Your task to perform on an android device: What's the price of the LG TV? Image 0: 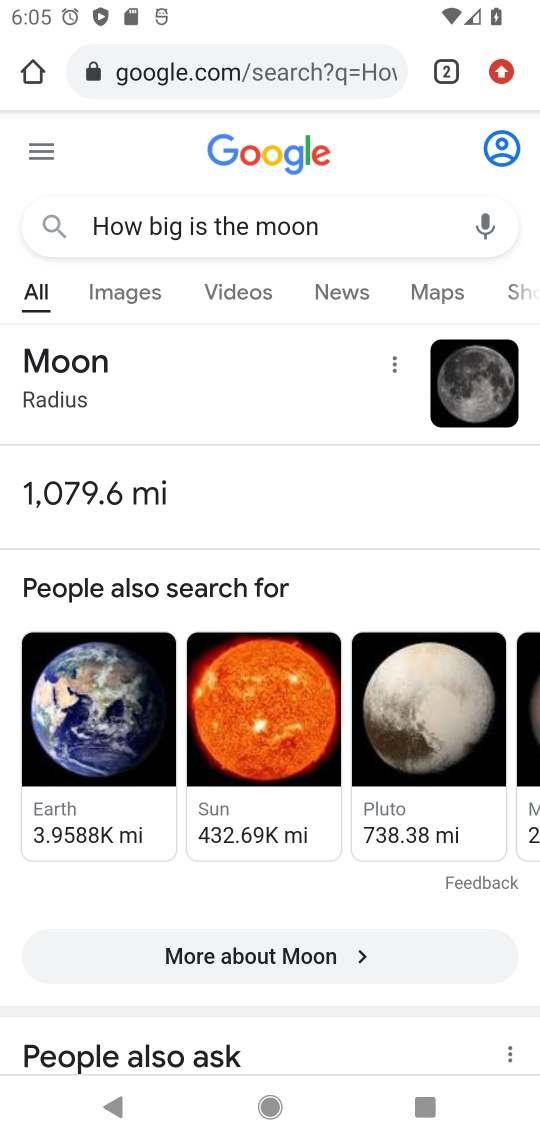
Step 0: click (317, 76)
Your task to perform on an android device: What's the price of the LG TV? Image 1: 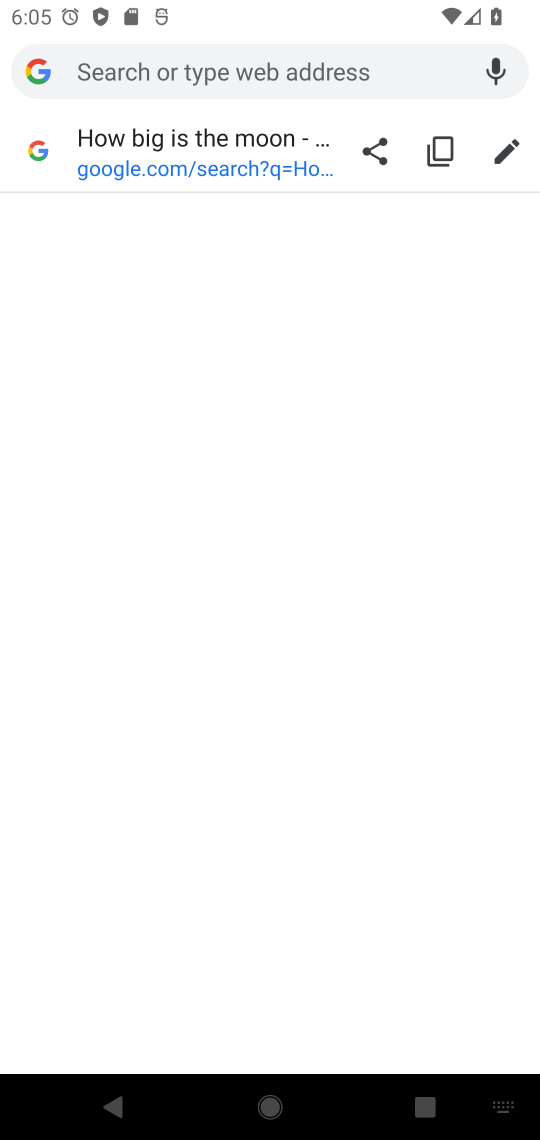
Step 1: type "price of the LG TV"
Your task to perform on an android device: What's the price of the LG TV? Image 2: 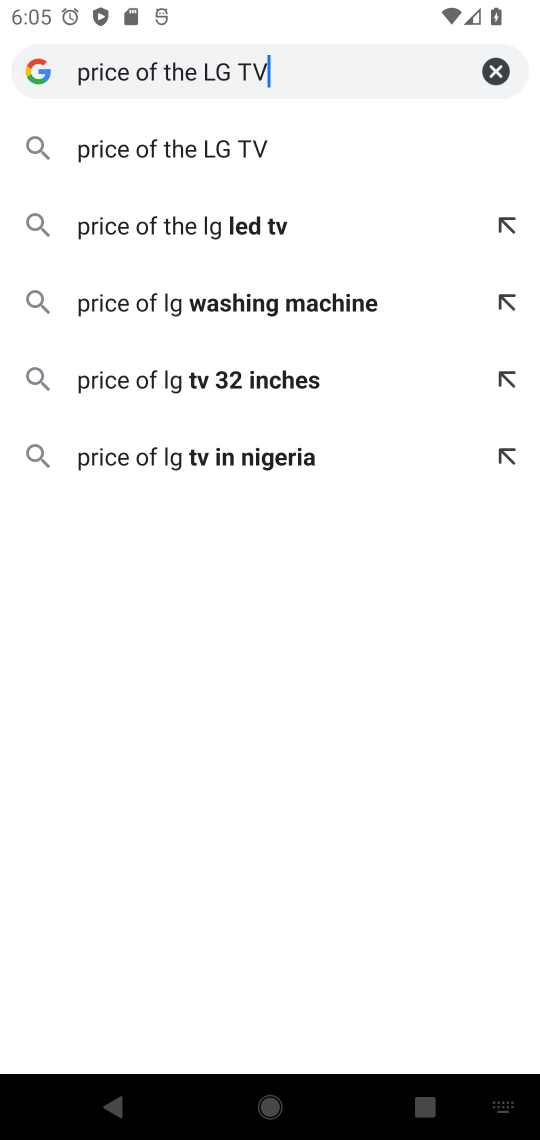
Step 2: type ""
Your task to perform on an android device: What's the price of the LG TV? Image 3: 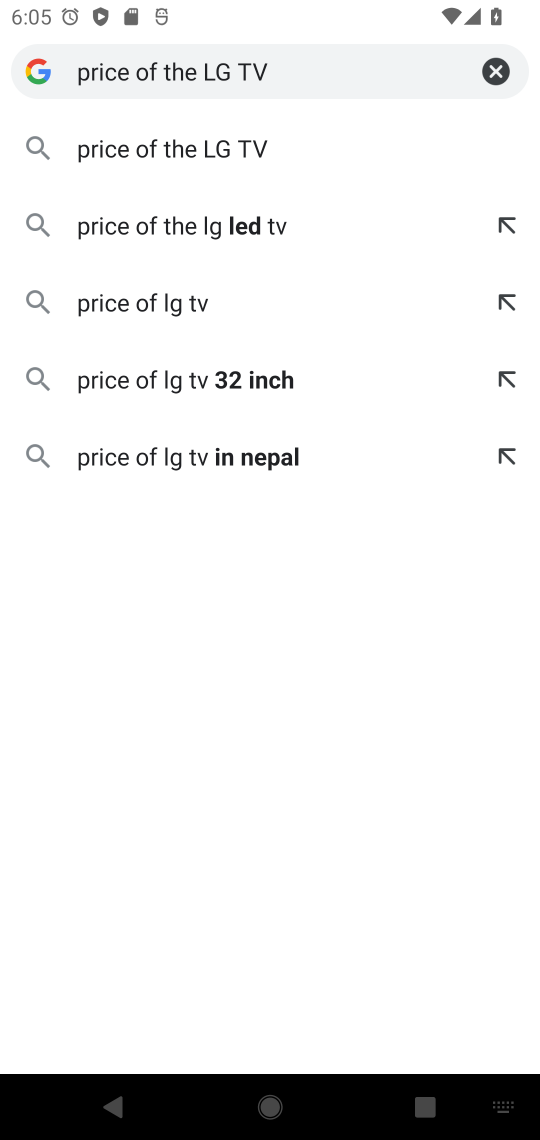
Step 3: click (199, 150)
Your task to perform on an android device: What's the price of the LG TV? Image 4: 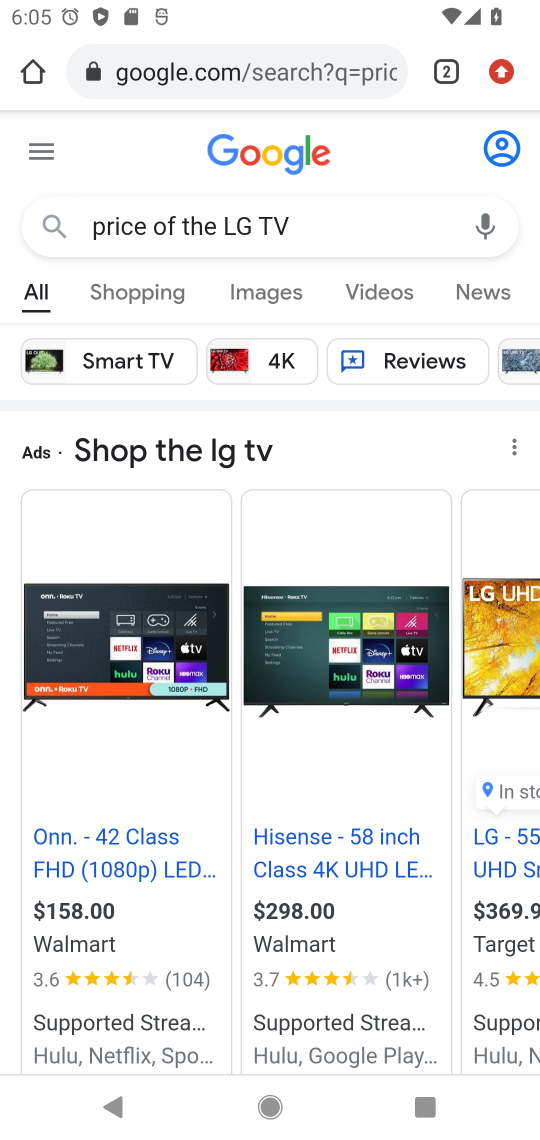
Step 4: drag from (176, 836) to (216, 463)
Your task to perform on an android device: What's the price of the LG TV? Image 5: 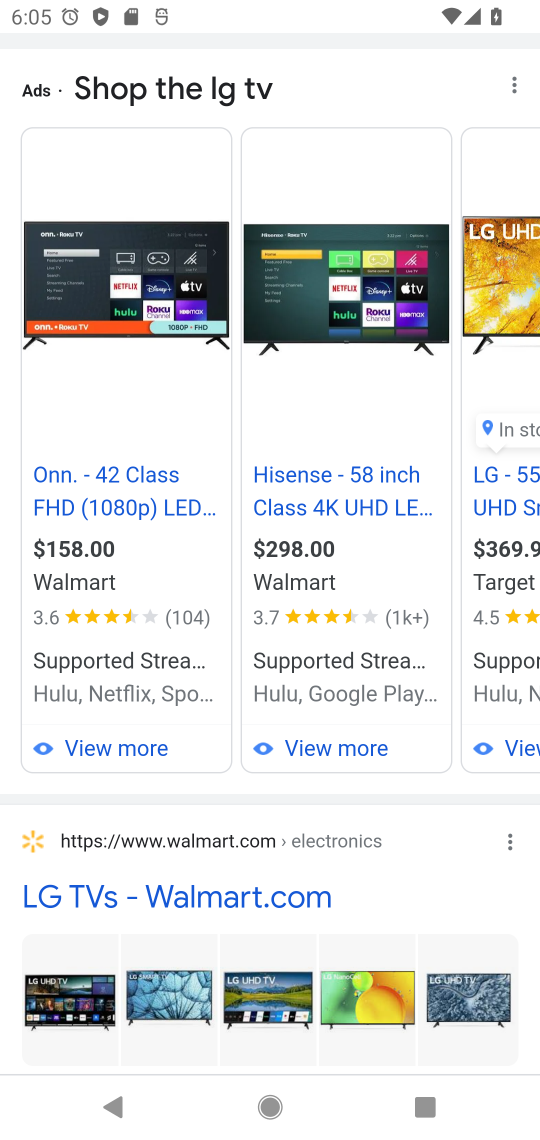
Step 5: click (222, 894)
Your task to perform on an android device: What's the price of the LG TV? Image 6: 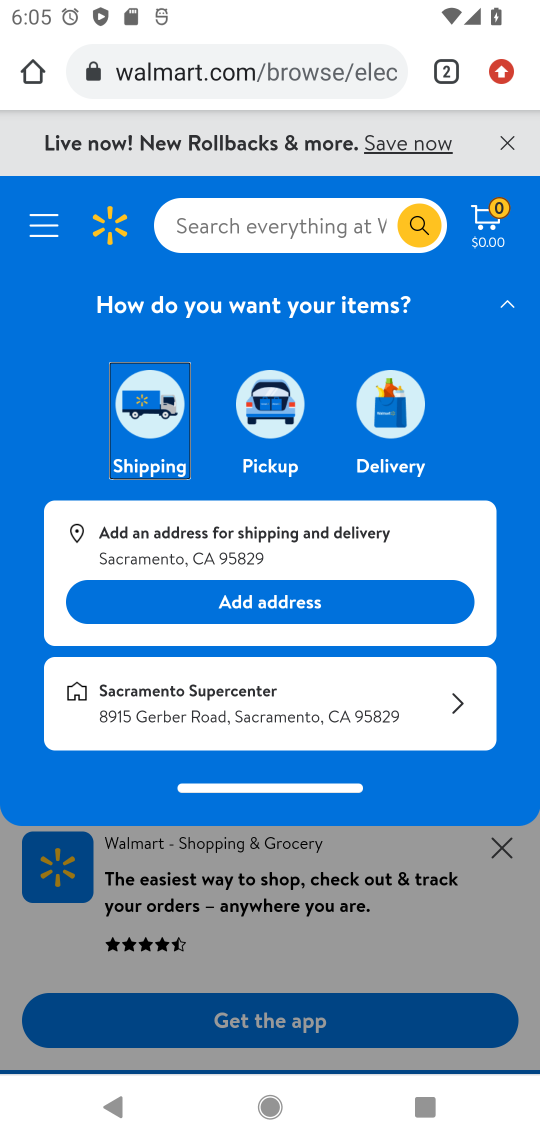
Step 6: click (512, 303)
Your task to perform on an android device: What's the price of the LG TV? Image 7: 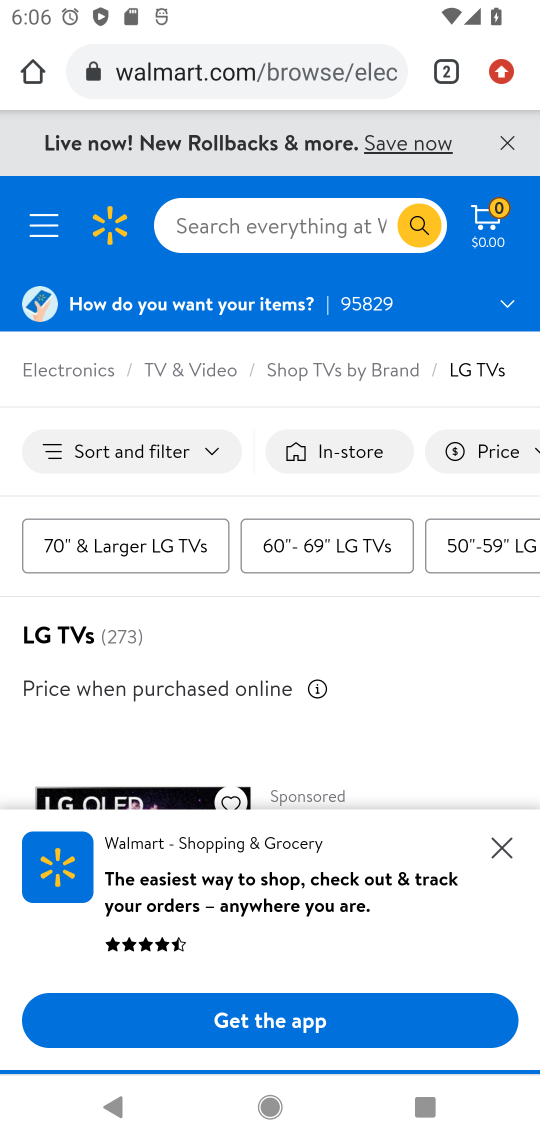
Step 7: drag from (447, 749) to (368, 448)
Your task to perform on an android device: What's the price of the LG TV? Image 8: 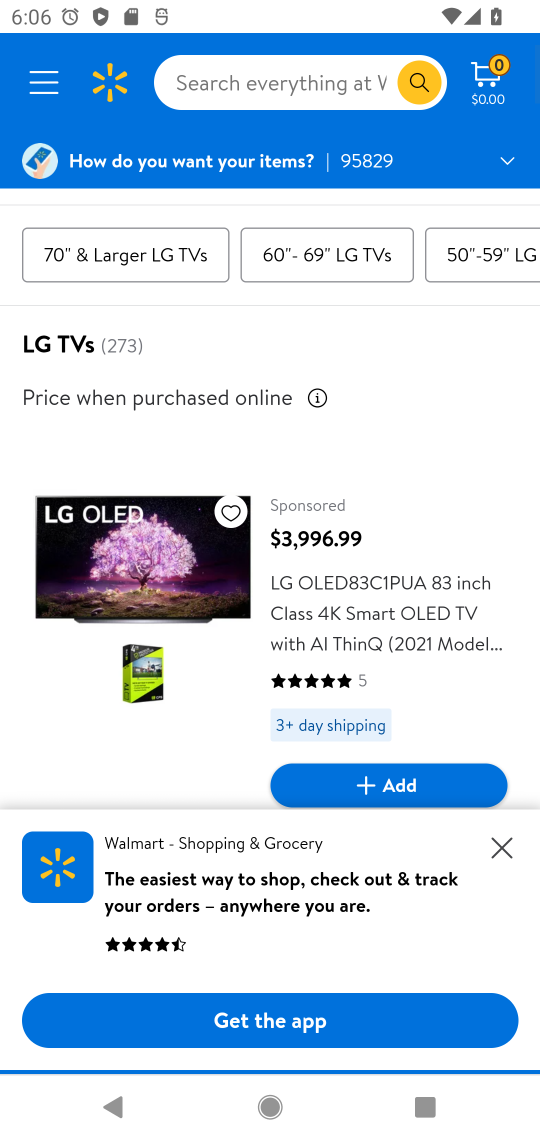
Step 8: click (507, 850)
Your task to perform on an android device: What's the price of the LG TV? Image 9: 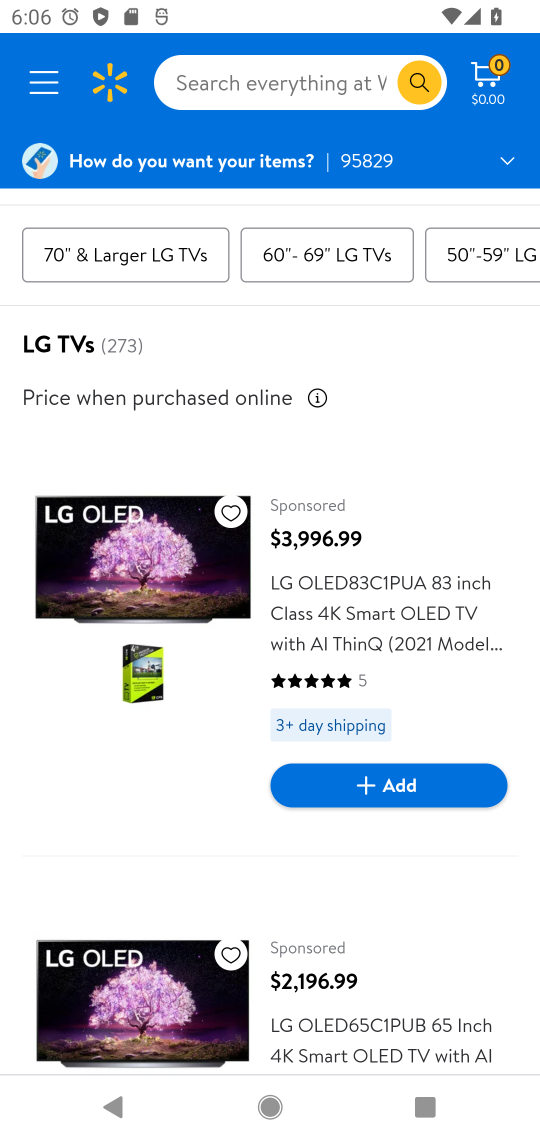
Step 9: task complete